Your task to perform on an android device: show emergency info Image 0: 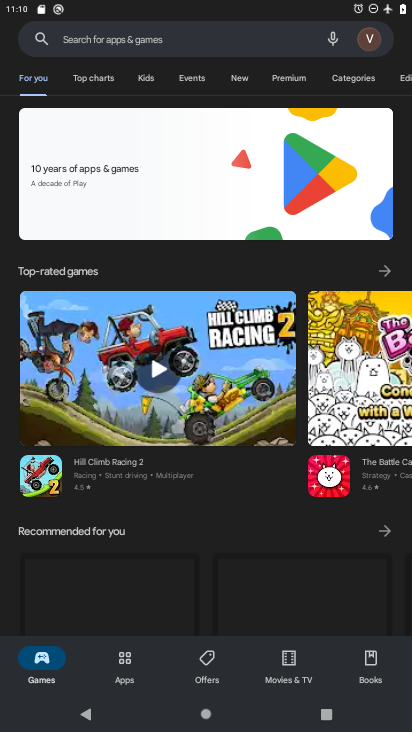
Step 0: press home button
Your task to perform on an android device: show emergency info Image 1: 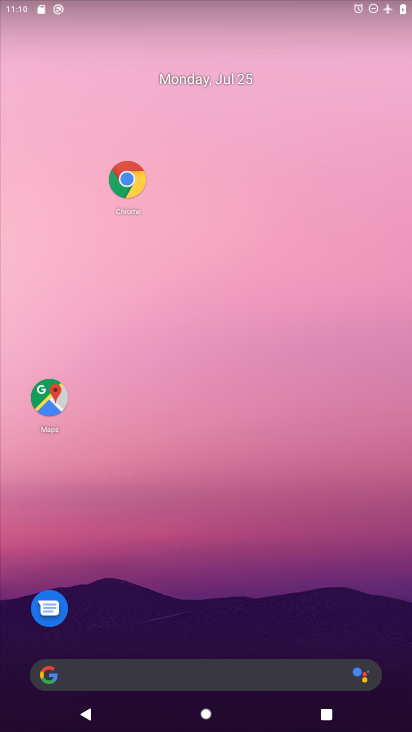
Step 1: drag from (258, 708) to (270, 124)
Your task to perform on an android device: show emergency info Image 2: 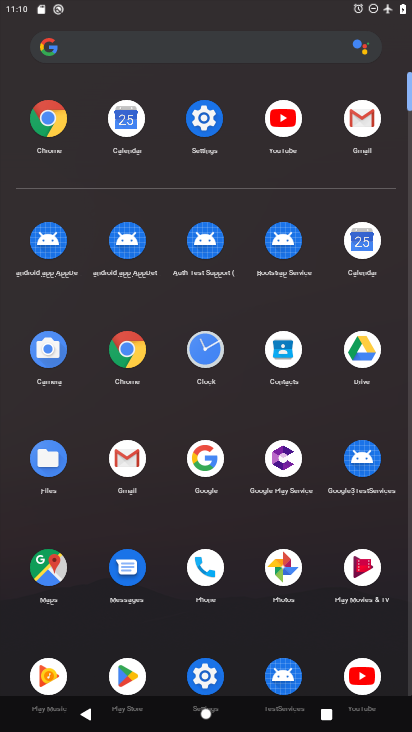
Step 2: click (208, 116)
Your task to perform on an android device: show emergency info Image 3: 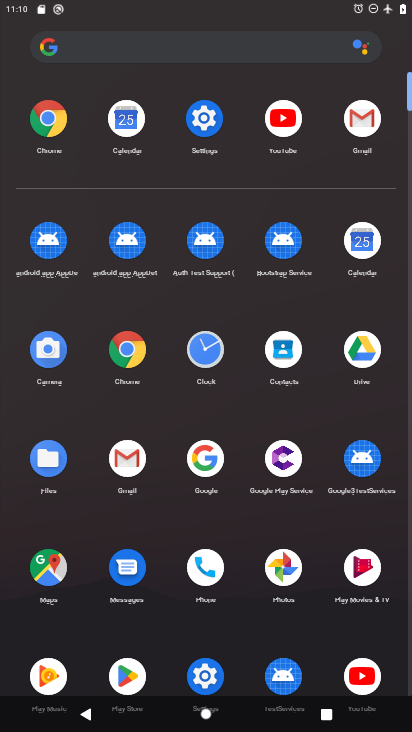
Step 3: click (208, 116)
Your task to perform on an android device: show emergency info Image 4: 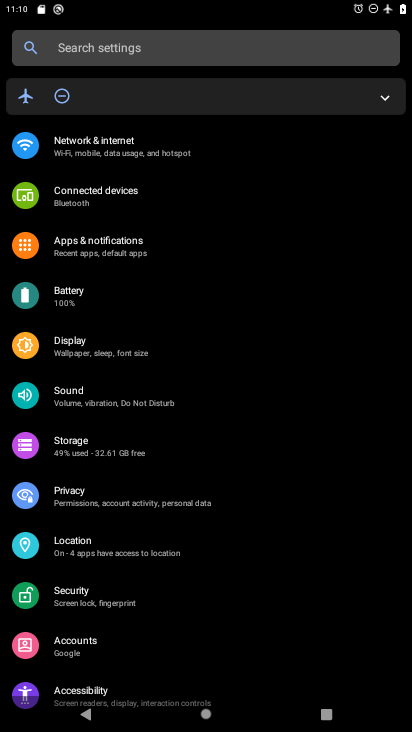
Step 4: drag from (259, 638) to (297, 25)
Your task to perform on an android device: show emergency info Image 5: 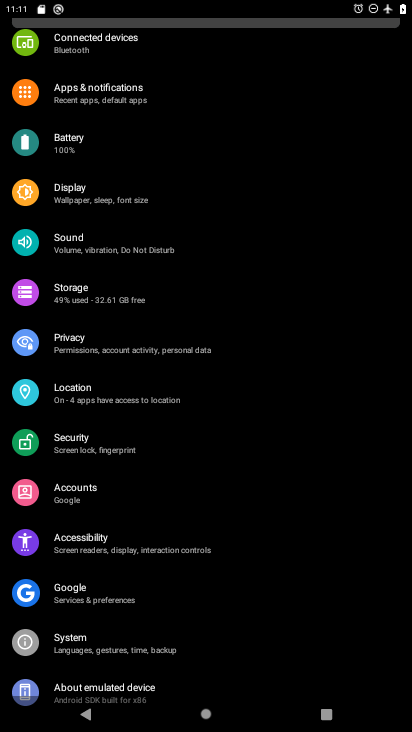
Step 5: click (117, 685)
Your task to perform on an android device: show emergency info Image 6: 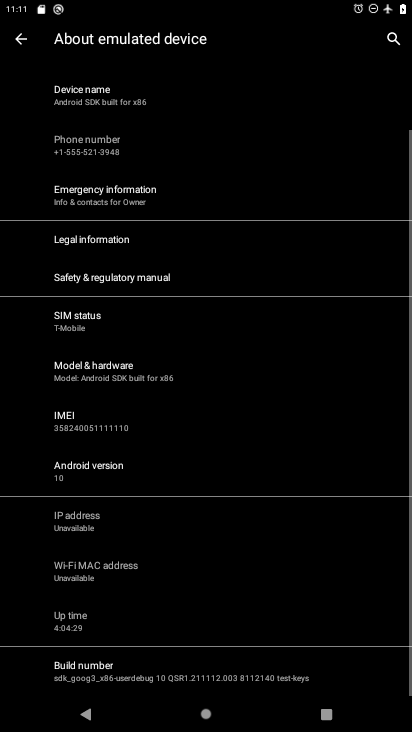
Step 6: click (130, 199)
Your task to perform on an android device: show emergency info Image 7: 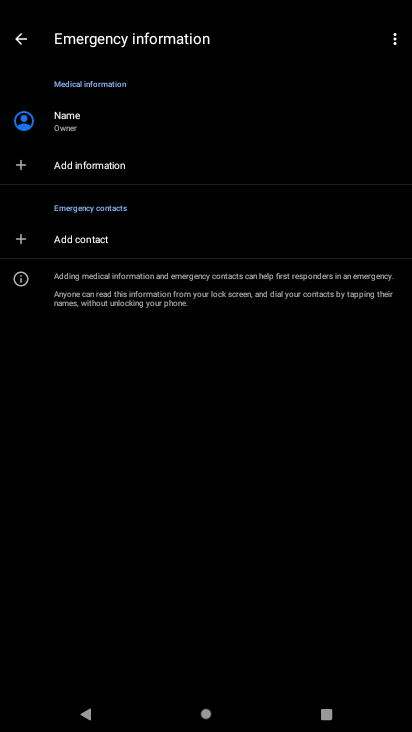
Step 7: task complete